Your task to perform on an android device: Search for Mexican restaurants on Maps Image 0: 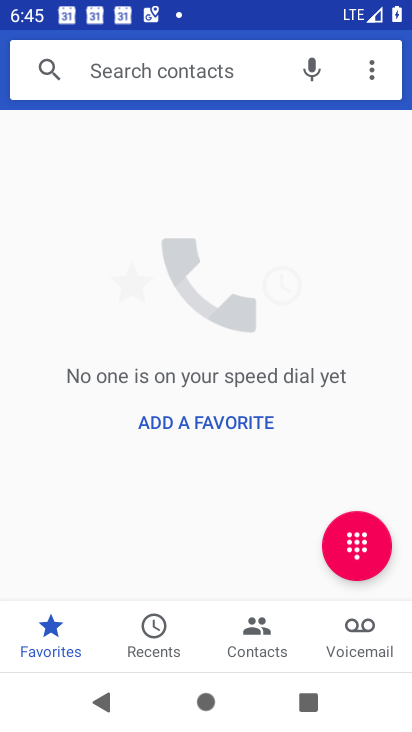
Step 0: press home button
Your task to perform on an android device: Search for Mexican restaurants on Maps Image 1: 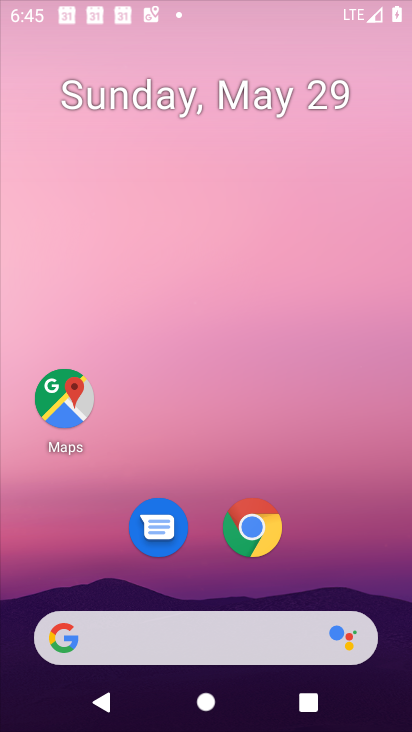
Step 1: drag from (352, 576) to (291, 56)
Your task to perform on an android device: Search for Mexican restaurants on Maps Image 2: 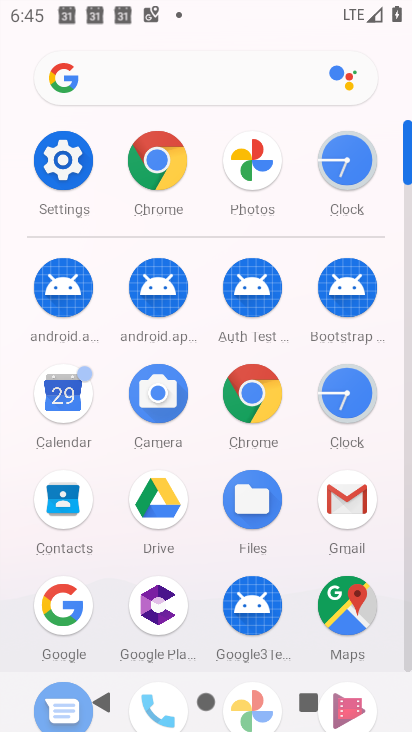
Step 2: click (336, 593)
Your task to perform on an android device: Search for Mexican restaurants on Maps Image 3: 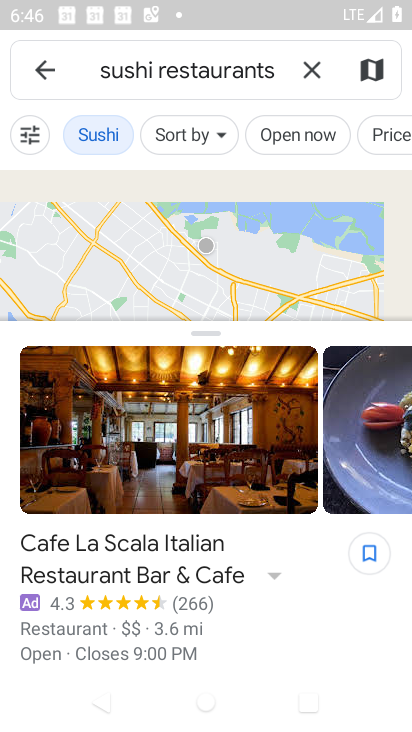
Step 3: click (323, 69)
Your task to perform on an android device: Search for Mexican restaurants on Maps Image 4: 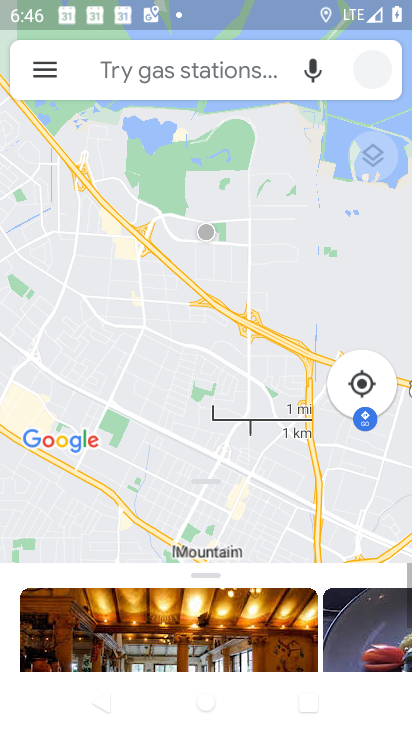
Step 4: click (205, 82)
Your task to perform on an android device: Search for Mexican restaurants on Maps Image 5: 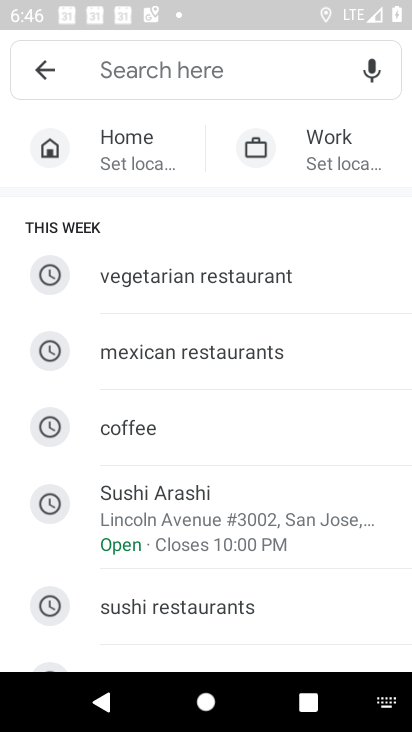
Step 5: drag from (141, 589) to (206, 356)
Your task to perform on an android device: Search for Mexican restaurants on Maps Image 6: 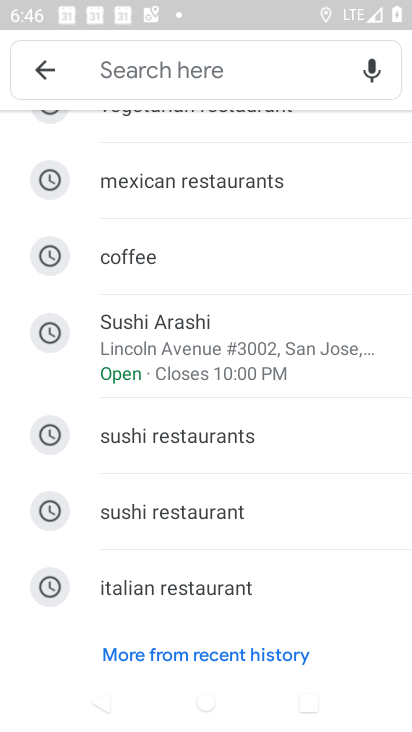
Step 6: click (211, 197)
Your task to perform on an android device: Search for Mexican restaurants on Maps Image 7: 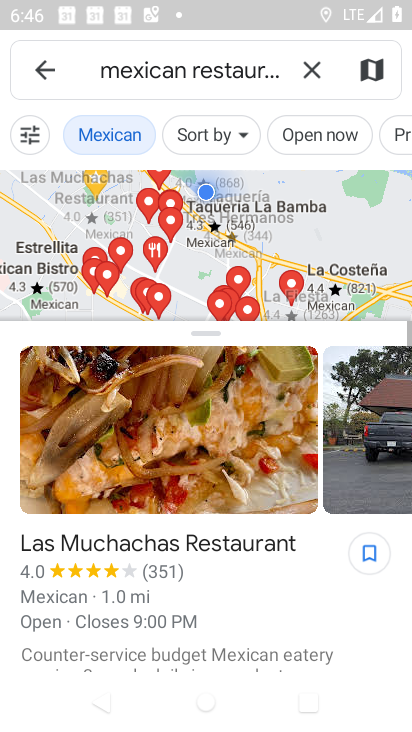
Step 7: task complete